Your task to perform on an android device: star an email in the gmail app Image 0: 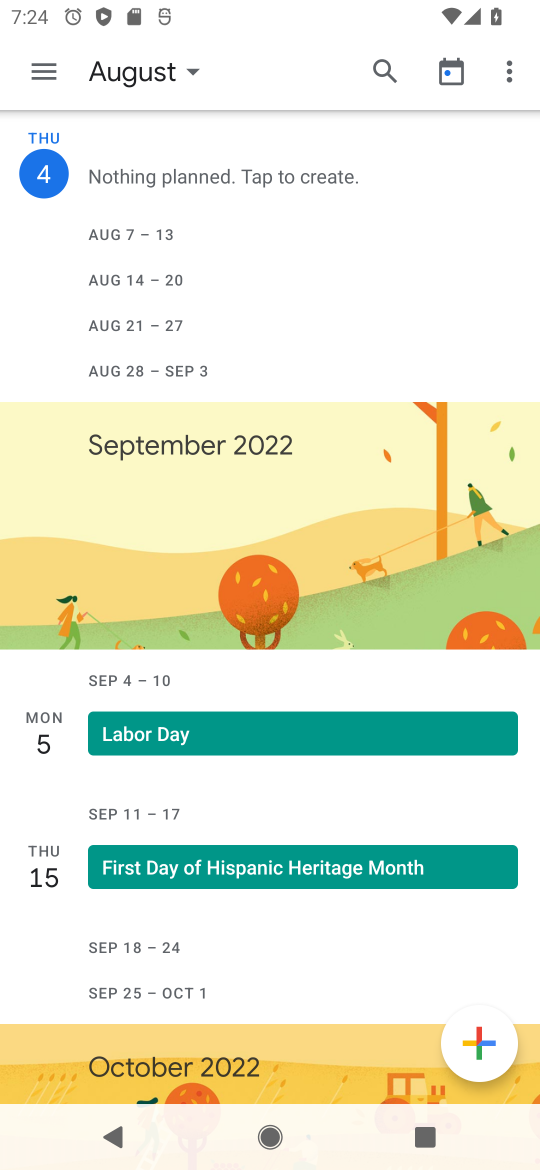
Step 0: press home button
Your task to perform on an android device: star an email in the gmail app Image 1: 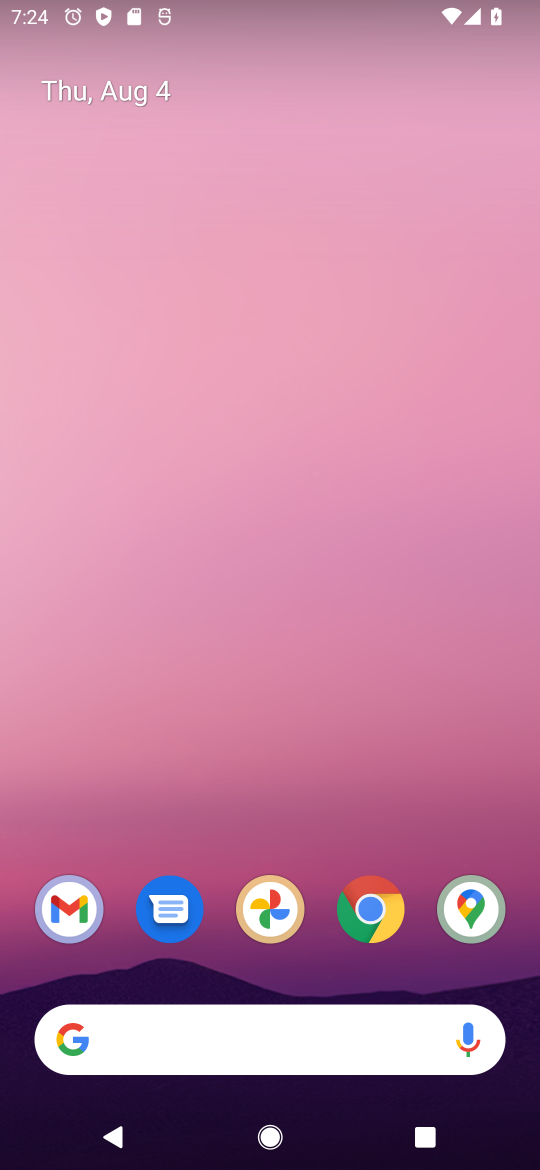
Step 1: drag from (270, 1031) to (277, 0)
Your task to perform on an android device: star an email in the gmail app Image 2: 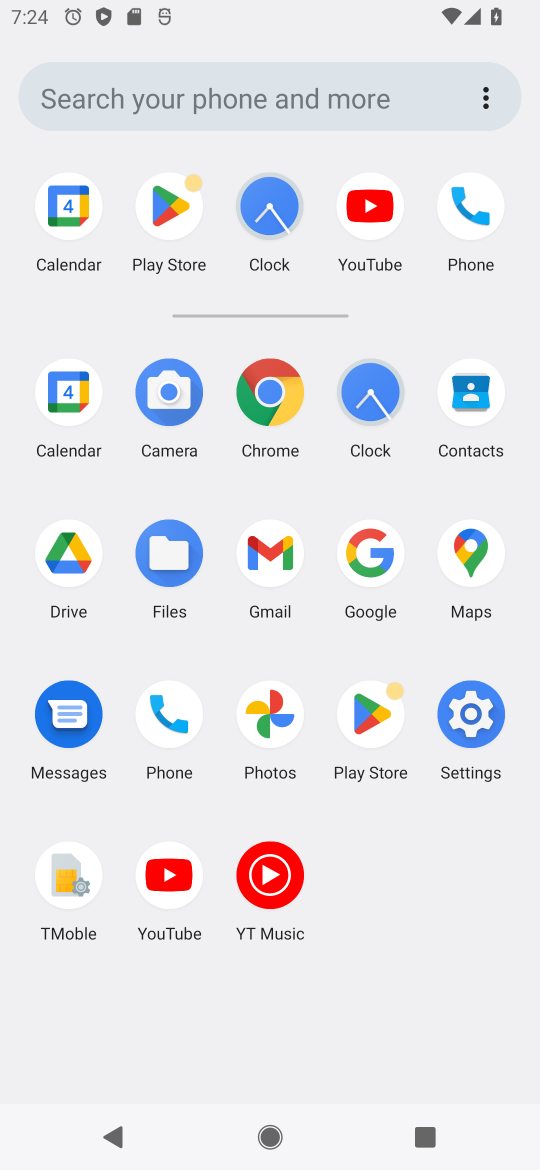
Step 2: click (271, 551)
Your task to perform on an android device: star an email in the gmail app Image 3: 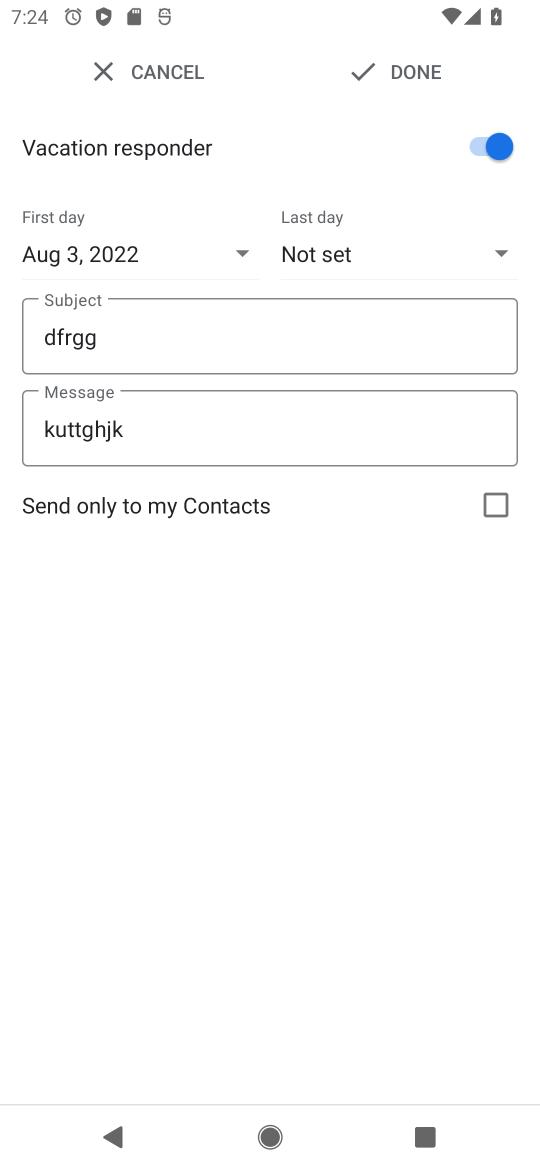
Step 3: click (104, 68)
Your task to perform on an android device: star an email in the gmail app Image 4: 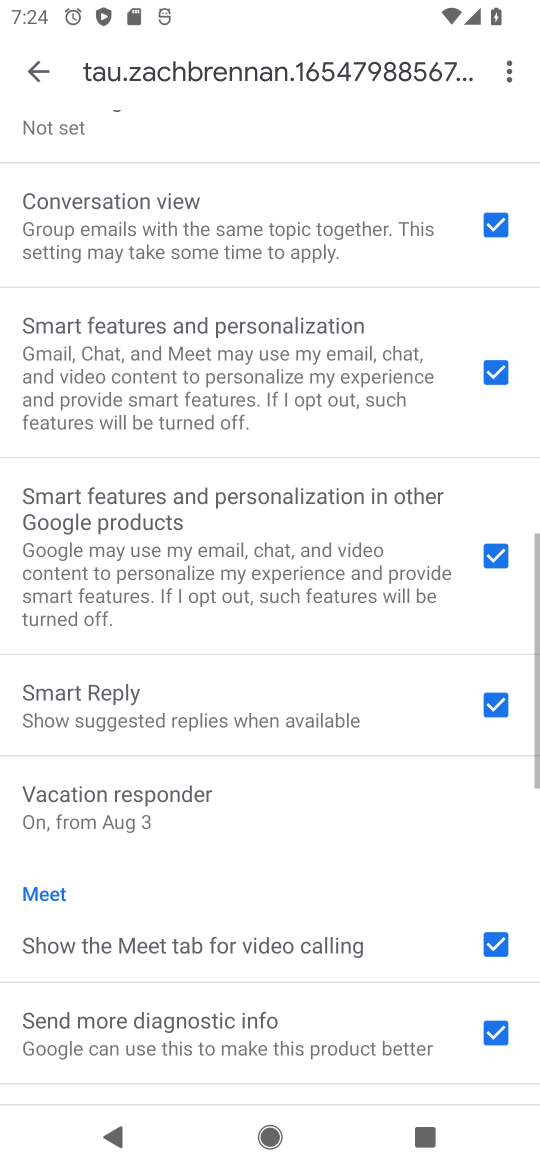
Step 4: click (31, 80)
Your task to perform on an android device: star an email in the gmail app Image 5: 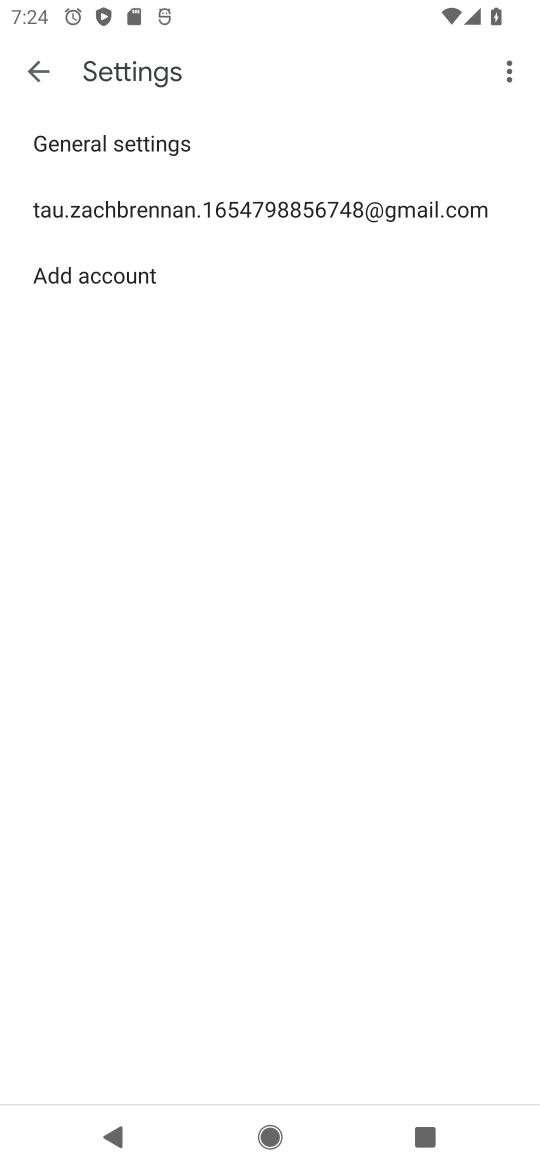
Step 5: click (31, 80)
Your task to perform on an android device: star an email in the gmail app Image 6: 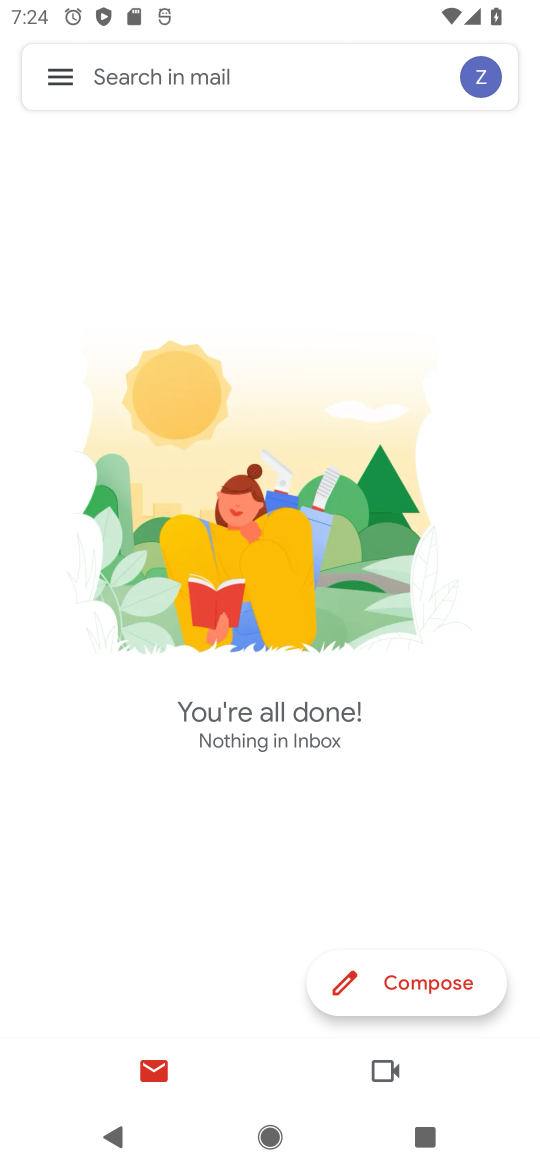
Step 6: click (50, 83)
Your task to perform on an android device: star an email in the gmail app Image 7: 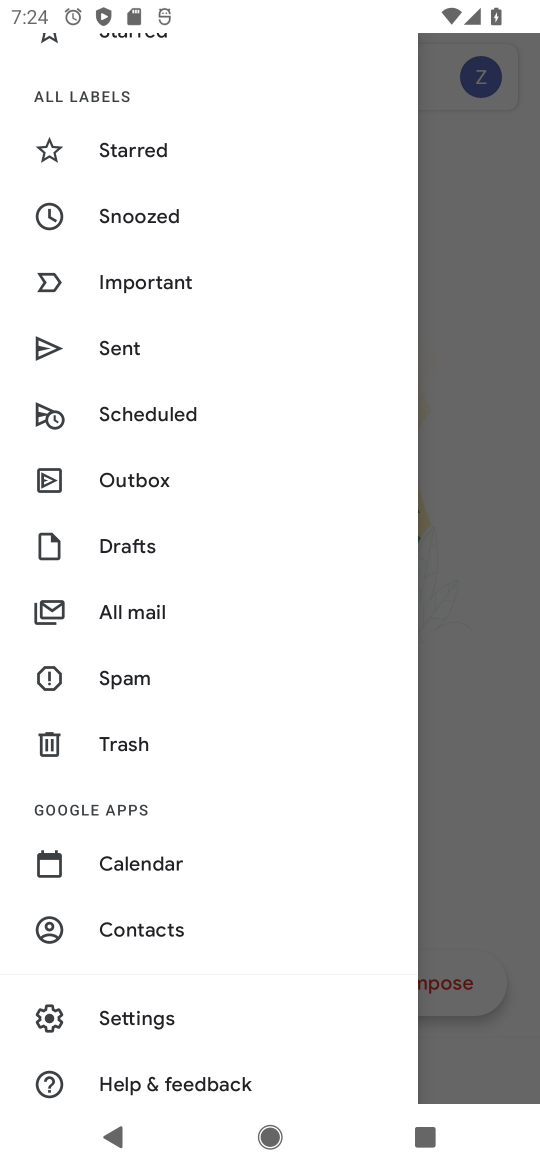
Step 7: drag from (248, 378) to (188, 1159)
Your task to perform on an android device: star an email in the gmail app Image 8: 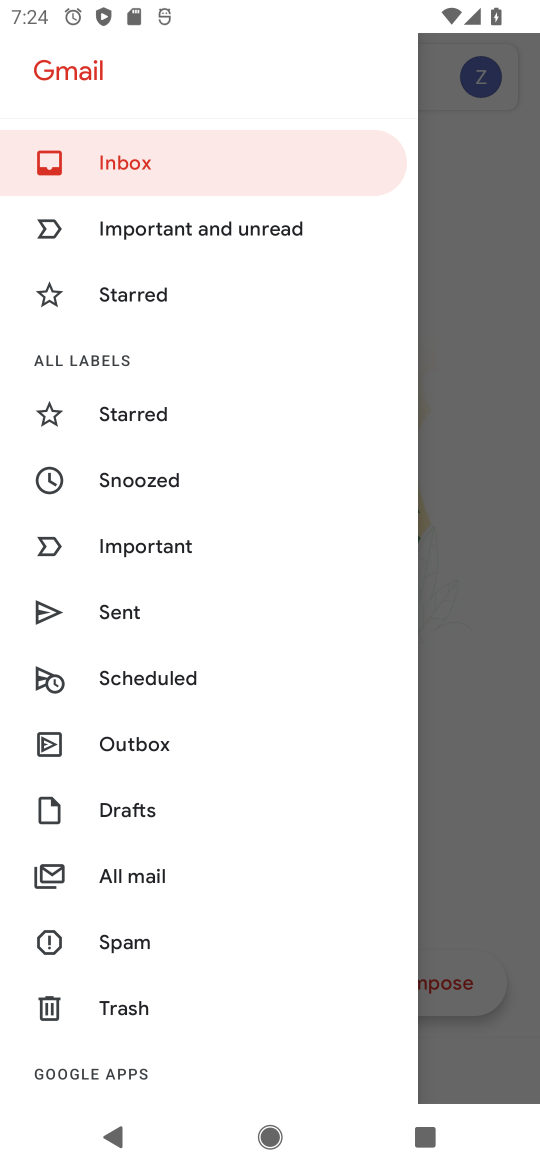
Step 8: click (95, 175)
Your task to perform on an android device: star an email in the gmail app Image 9: 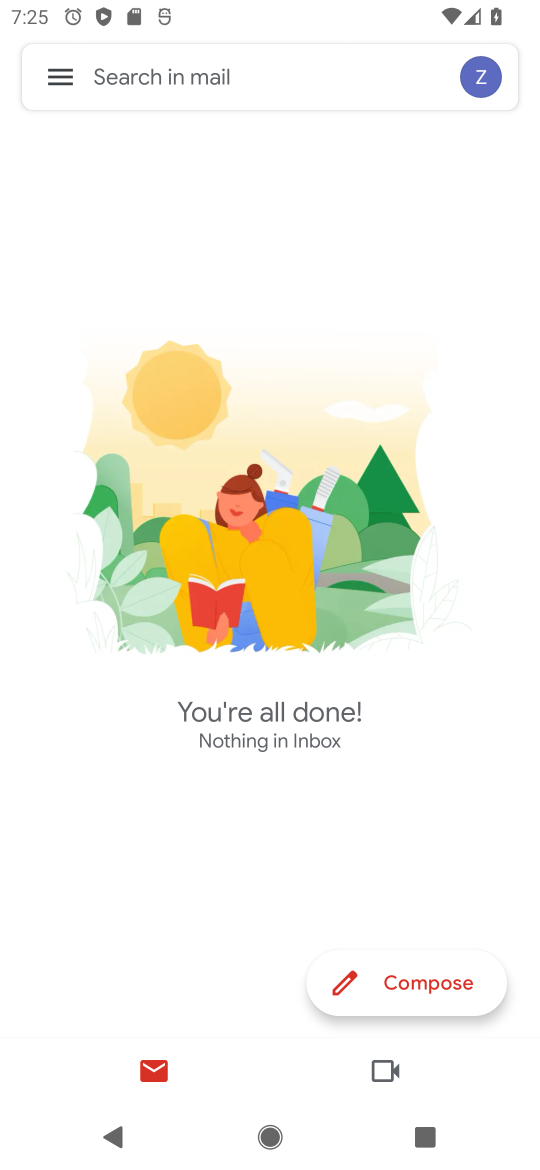
Step 9: task complete